Your task to perform on an android device: Is it going to rain this weekend? Image 0: 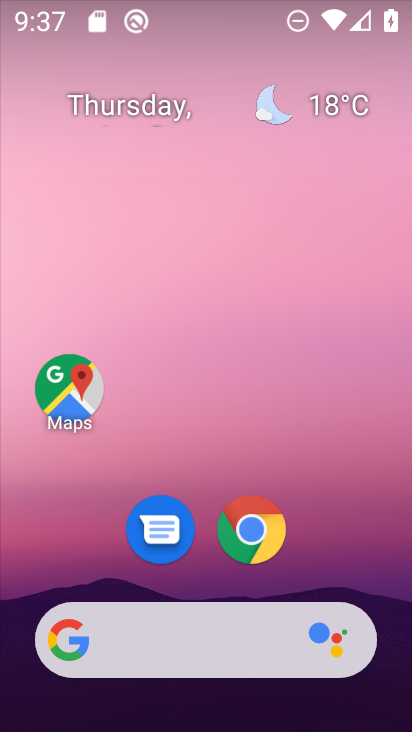
Step 0: drag from (3, 259) to (391, 269)
Your task to perform on an android device: Is it going to rain this weekend? Image 1: 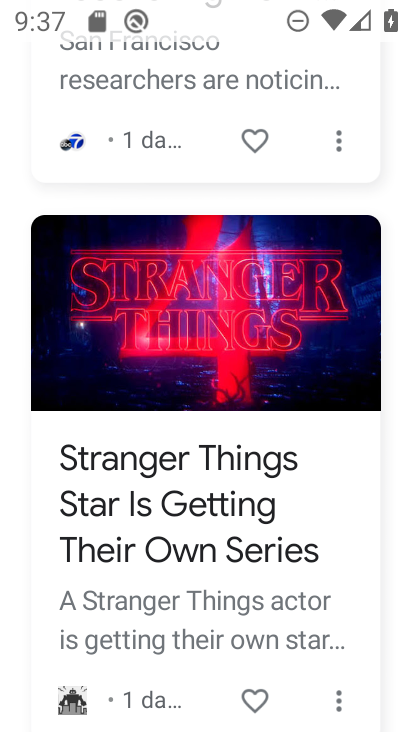
Step 1: drag from (323, 376) to (342, 577)
Your task to perform on an android device: Is it going to rain this weekend? Image 2: 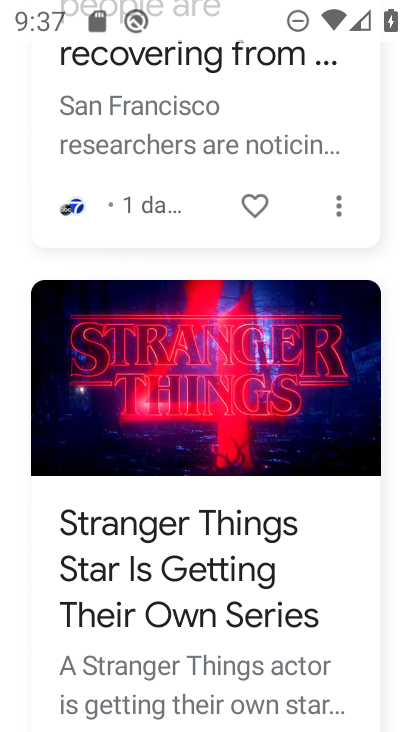
Step 2: drag from (312, 149) to (317, 569)
Your task to perform on an android device: Is it going to rain this weekend? Image 3: 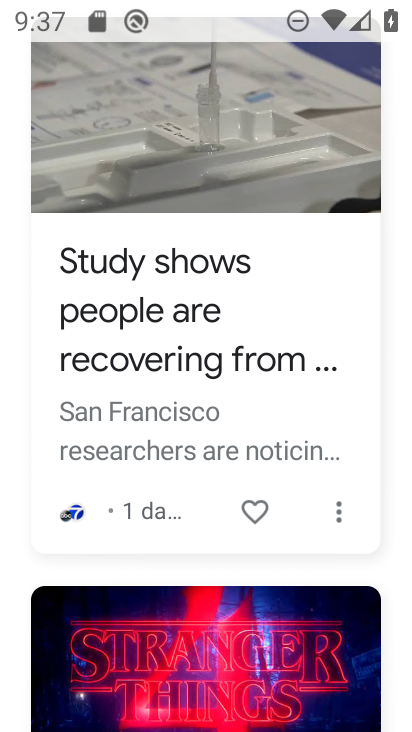
Step 3: drag from (299, 114) to (323, 544)
Your task to perform on an android device: Is it going to rain this weekend? Image 4: 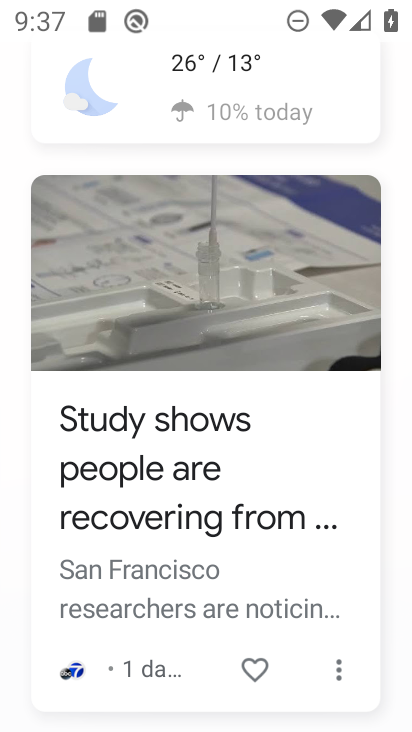
Step 4: click (211, 68)
Your task to perform on an android device: Is it going to rain this weekend? Image 5: 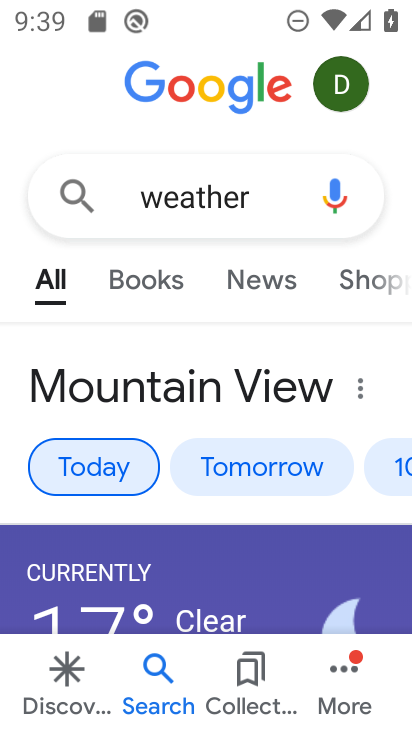
Step 5: click (391, 471)
Your task to perform on an android device: Is it going to rain this weekend? Image 6: 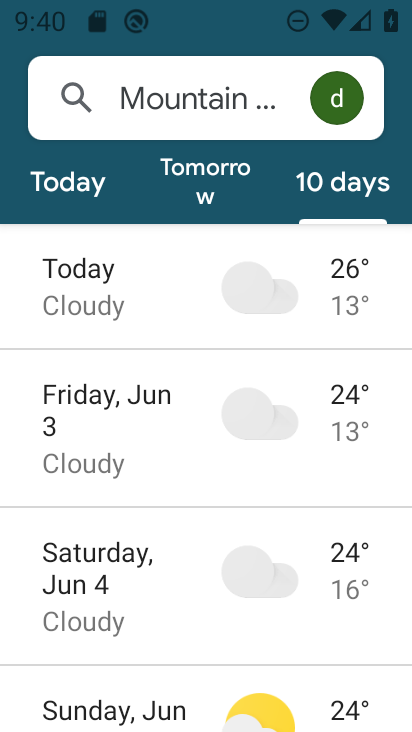
Step 6: task complete